Your task to perform on an android device: clear all cookies in the chrome app Image 0: 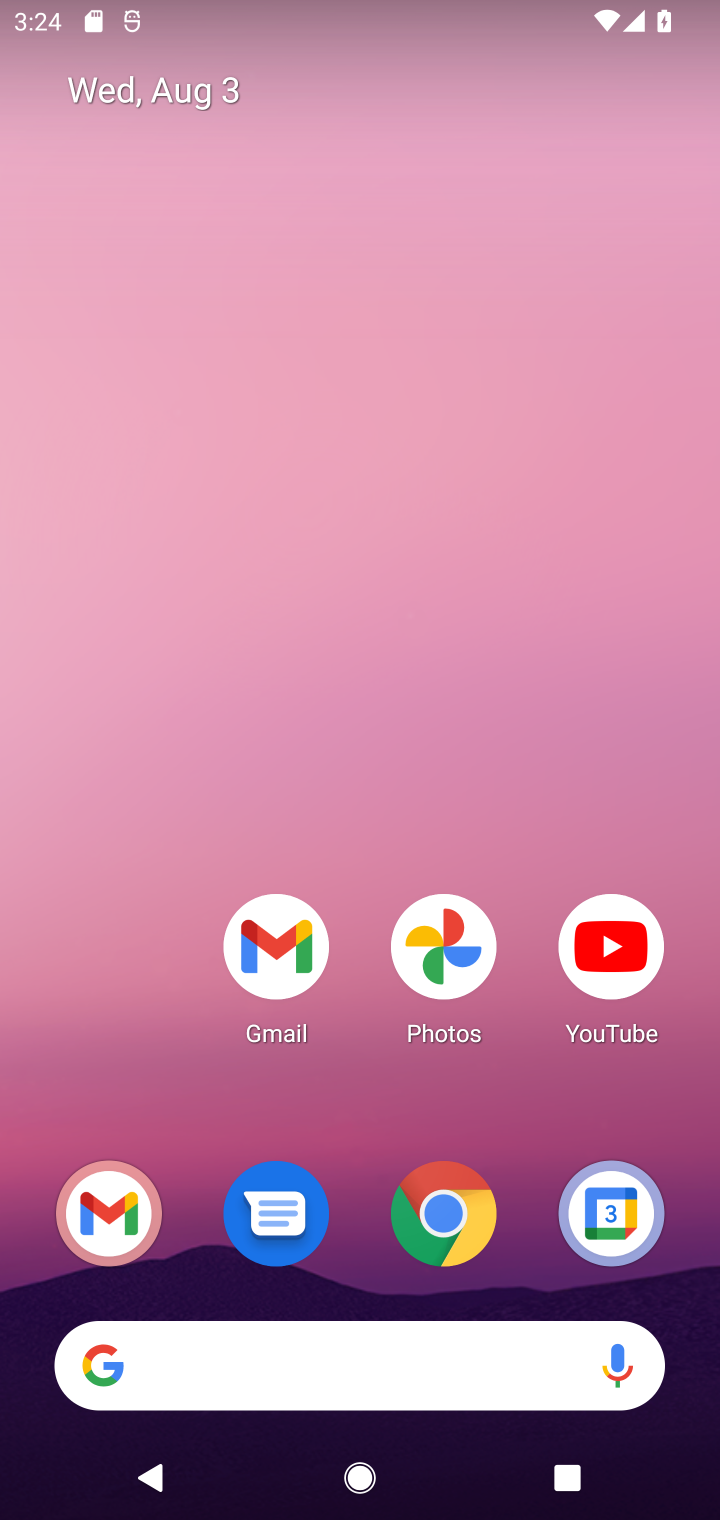
Step 0: drag from (403, 1265) to (430, 447)
Your task to perform on an android device: clear all cookies in the chrome app Image 1: 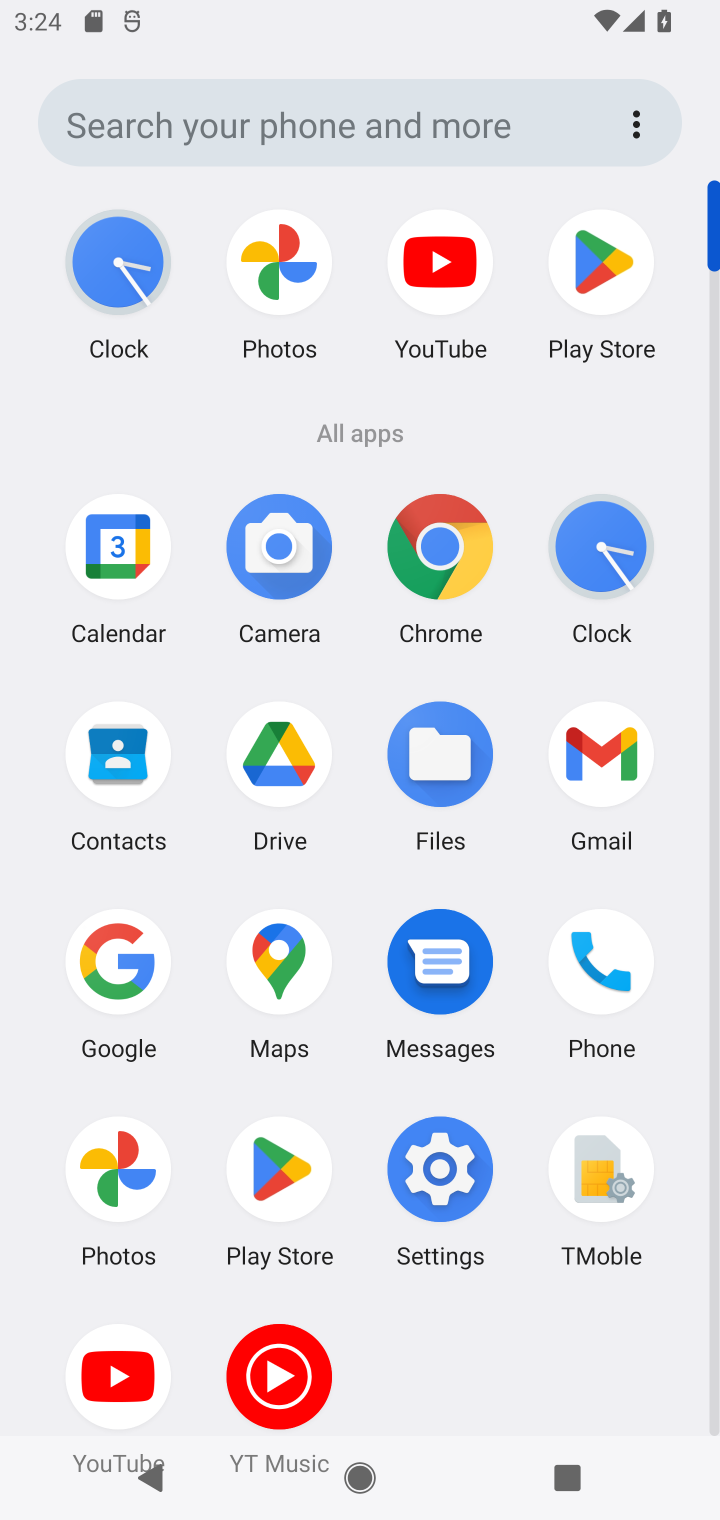
Step 1: click (434, 540)
Your task to perform on an android device: clear all cookies in the chrome app Image 2: 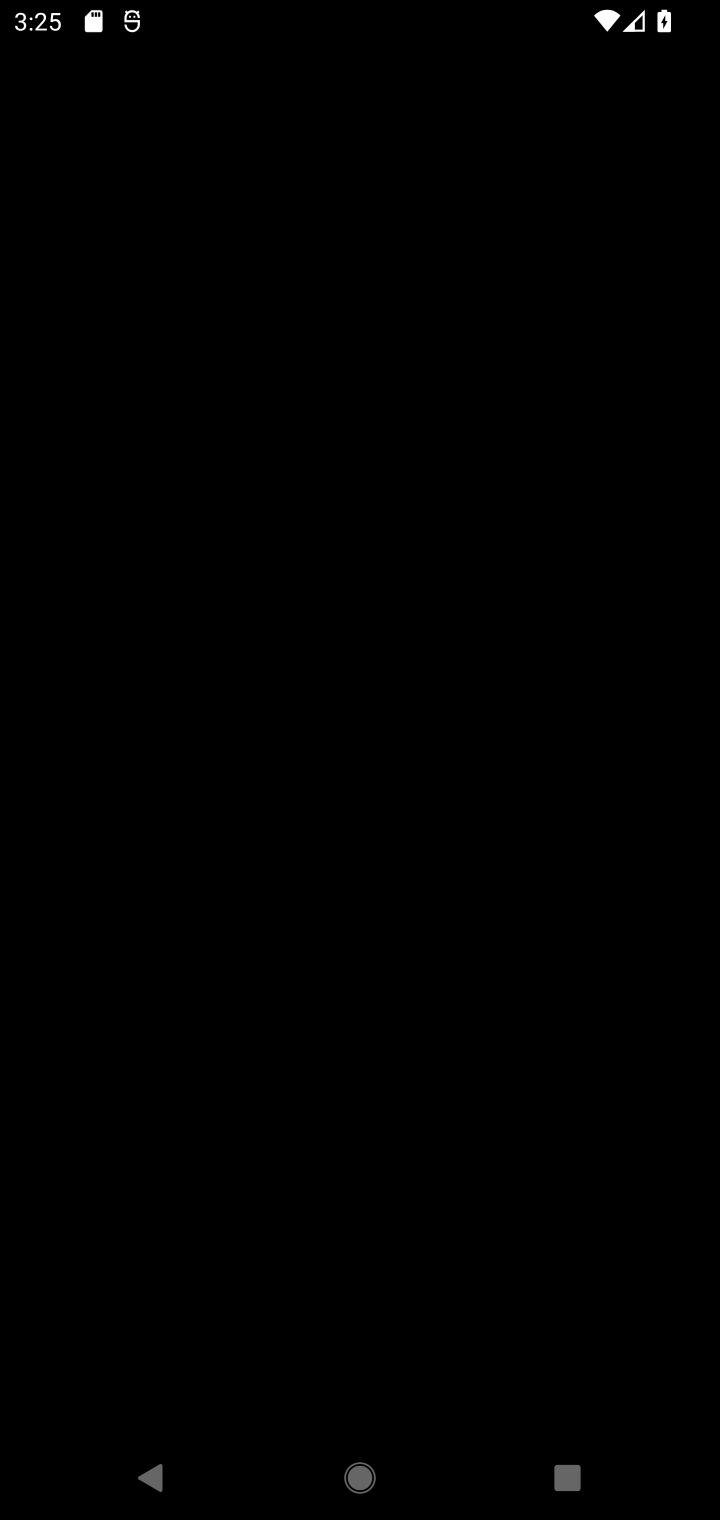
Step 2: task complete